Your task to perform on an android device: turn off wifi Image 0: 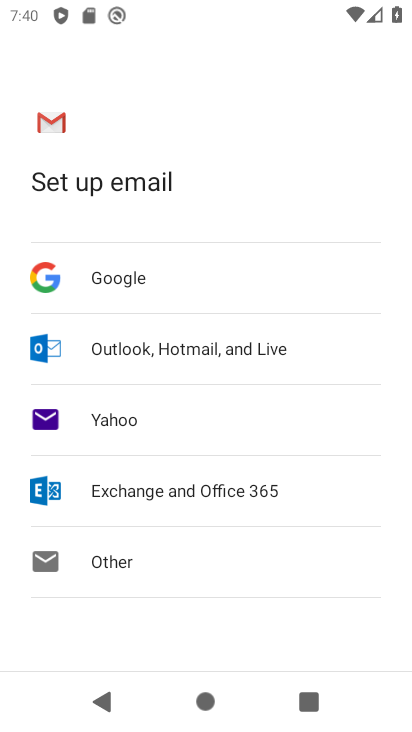
Step 0: press home button
Your task to perform on an android device: turn off wifi Image 1: 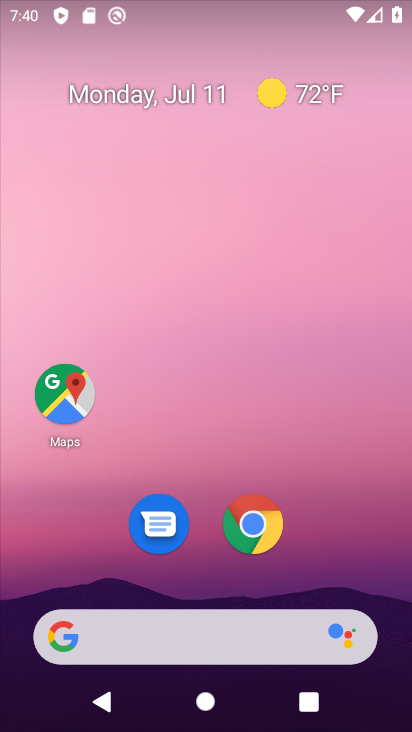
Step 1: drag from (202, 464) to (230, 9)
Your task to perform on an android device: turn off wifi Image 2: 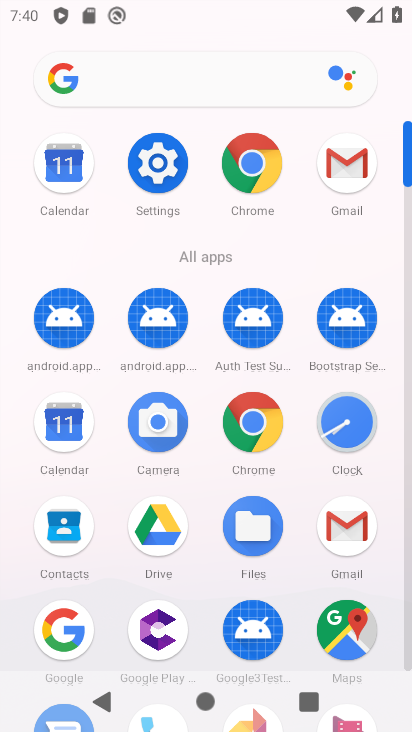
Step 2: click (165, 162)
Your task to perform on an android device: turn off wifi Image 3: 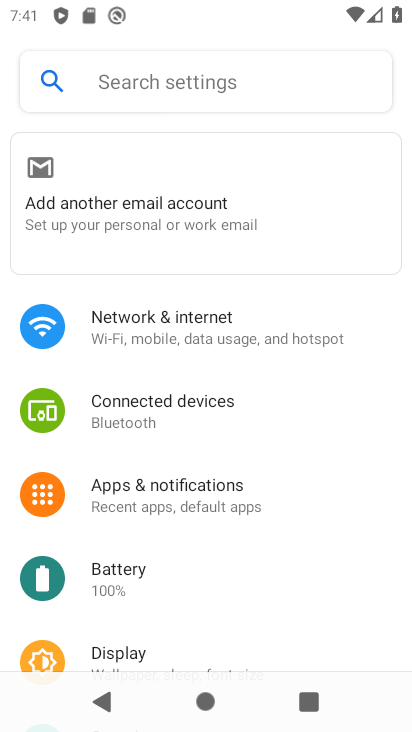
Step 3: click (182, 325)
Your task to perform on an android device: turn off wifi Image 4: 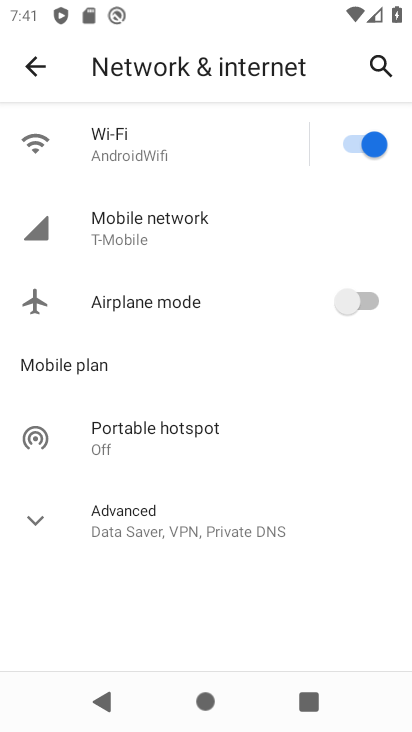
Step 4: click (356, 135)
Your task to perform on an android device: turn off wifi Image 5: 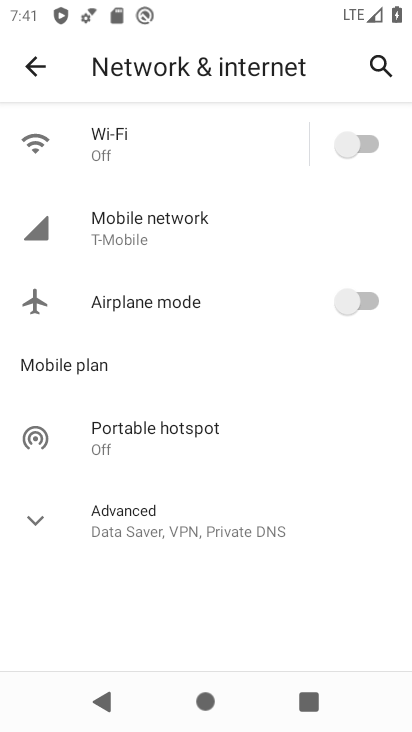
Step 5: task complete